Your task to perform on an android device: open sync settings in chrome Image 0: 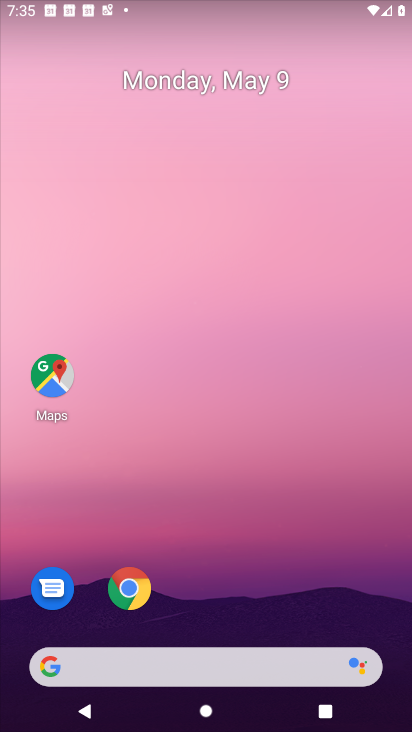
Step 0: press home button
Your task to perform on an android device: open sync settings in chrome Image 1: 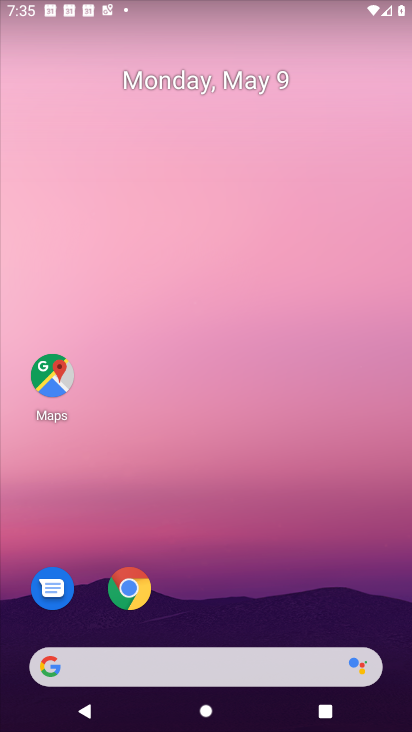
Step 1: drag from (136, 665) to (289, 170)
Your task to perform on an android device: open sync settings in chrome Image 2: 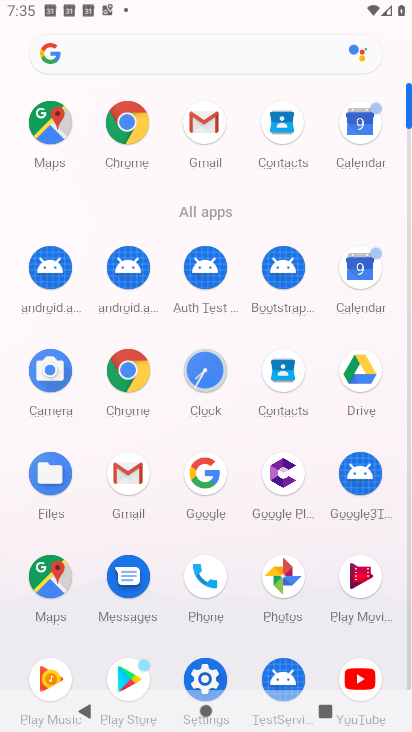
Step 2: click (130, 133)
Your task to perform on an android device: open sync settings in chrome Image 3: 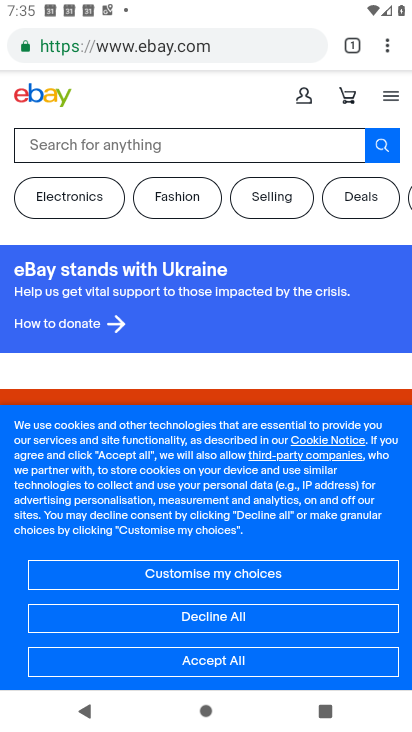
Step 3: drag from (388, 48) to (260, 555)
Your task to perform on an android device: open sync settings in chrome Image 4: 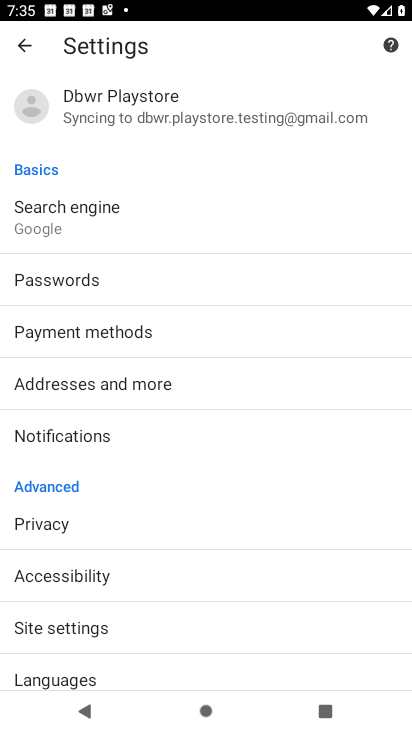
Step 4: click (164, 119)
Your task to perform on an android device: open sync settings in chrome Image 5: 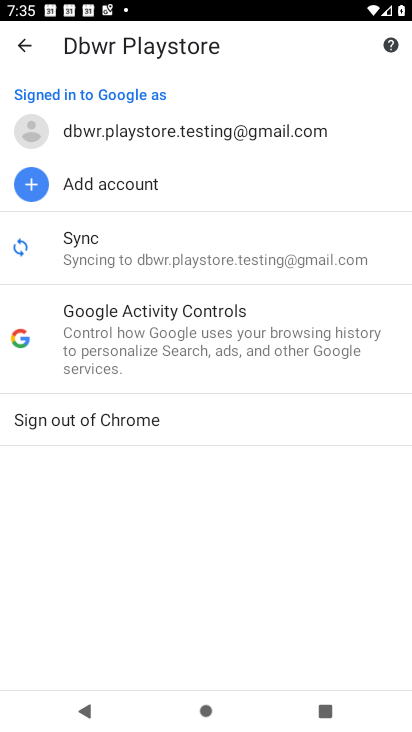
Step 5: click (148, 249)
Your task to perform on an android device: open sync settings in chrome Image 6: 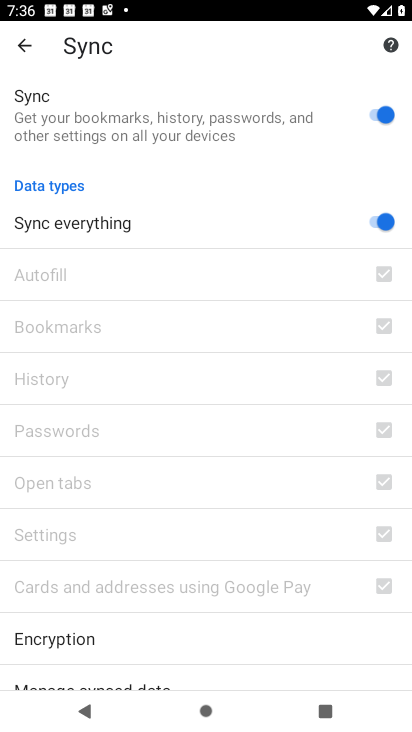
Step 6: task complete